Your task to perform on an android device: add a contact in the contacts app Image 0: 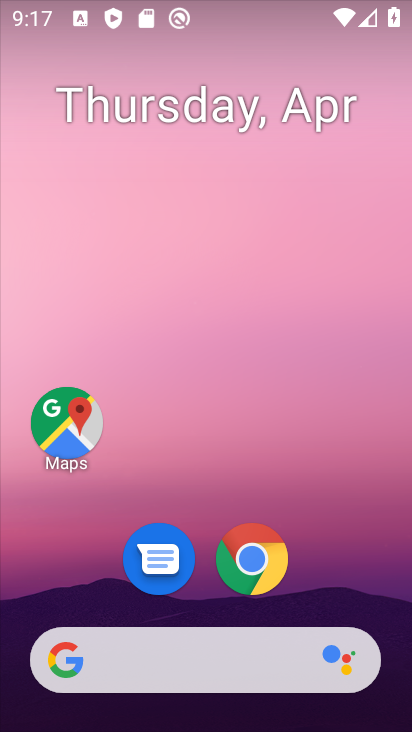
Step 0: drag from (265, 721) to (327, 87)
Your task to perform on an android device: add a contact in the contacts app Image 1: 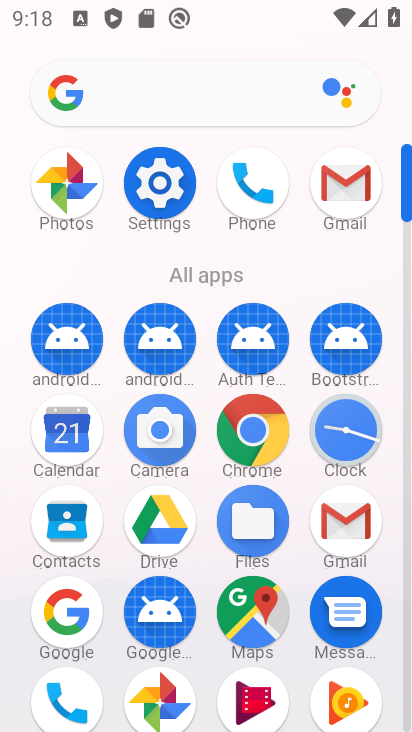
Step 1: click (58, 519)
Your task to perform on an android device: add a contact in the contacts app Image 2: 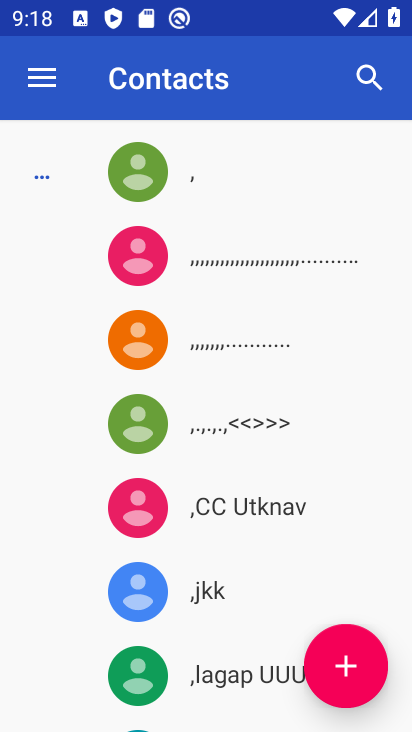
Step 2: click (333, 674)
Your task to perform on an android device: add a contact in the contacts app Image 3: 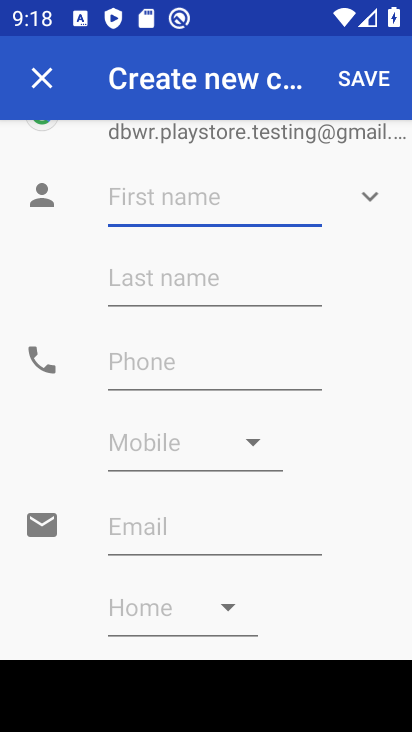
Step 3: type "hvj"
Your task to perform on an android device: add a contact in the contacts app Image 4: 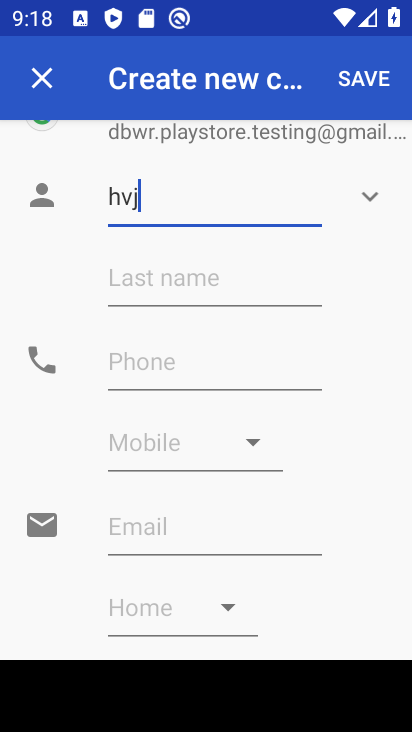
Step 4: click (218, 365)
Your task to perform on an android device: add a contact in the contacts app Image 5: 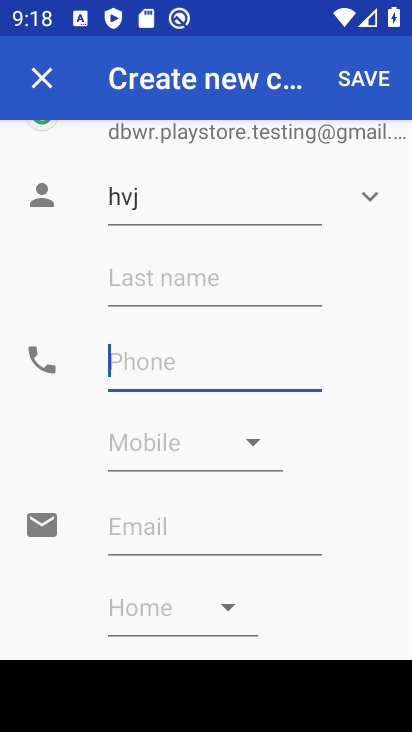
Step 5: type "78"
Your task to perform on an android device: add a contact in the contacts app Image 6: 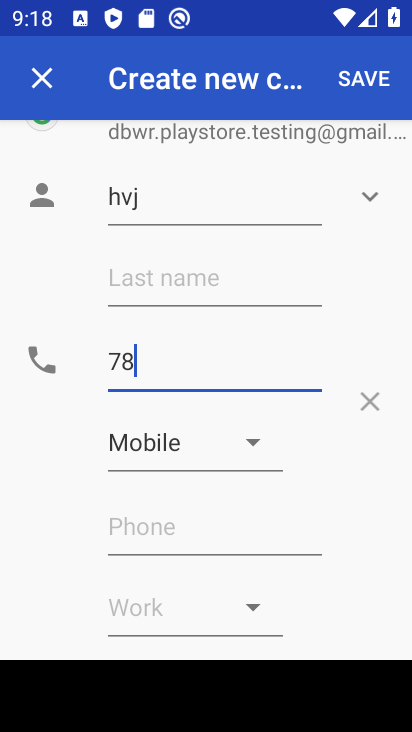
Step 6: click (334, 81)
Your task to perform on an android device: add a contact in the contacts app Image 7: 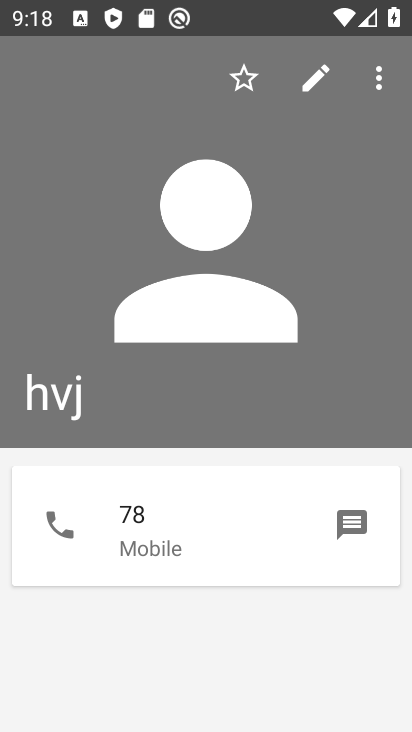
Step 7: task complete